Your task to perform on an android device: find photos in the google photos app Image 0: 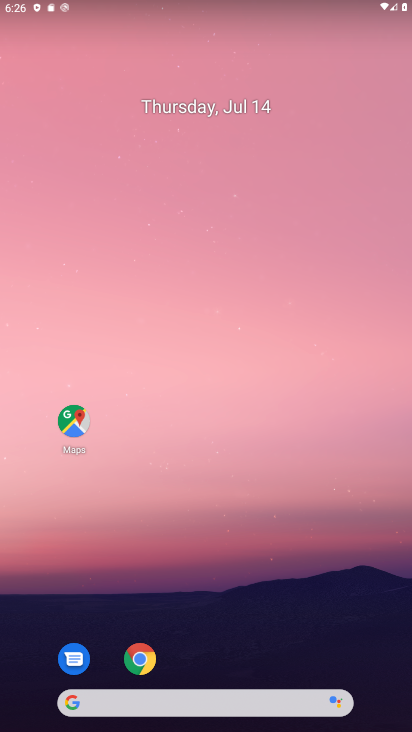
Step 0: drag from (241, 707) to (254, 3)
Your task to perform on an android device: find photos in the google photos app Image 1: 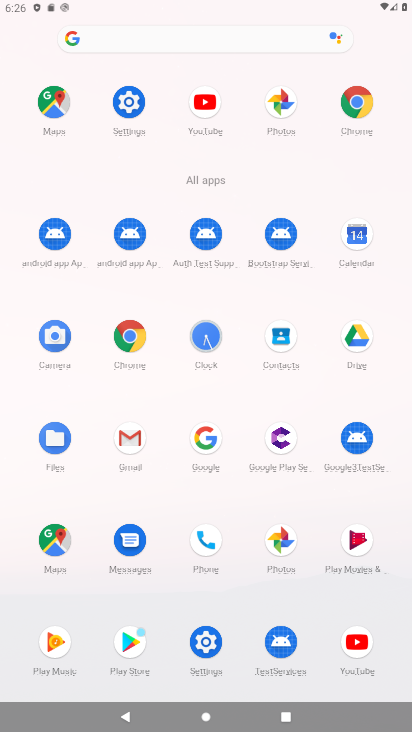
Step 1: click (284, 536)
Your task to perform on an android device: find photos in the google photos app Image 2: 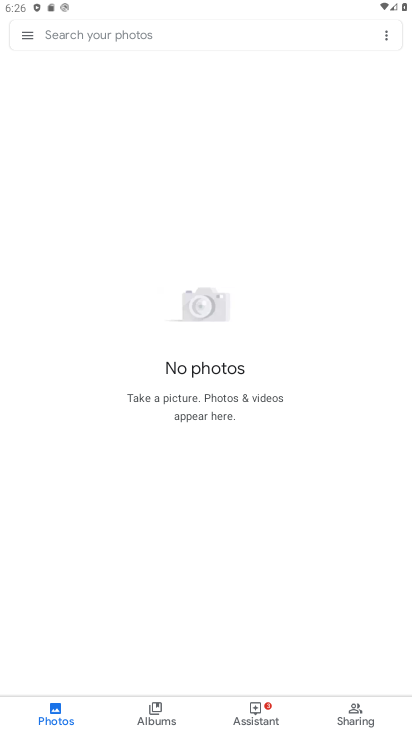
Step 2: task complete